Your task to perform on an android device: turn pop-ups on in chrome Image 0: 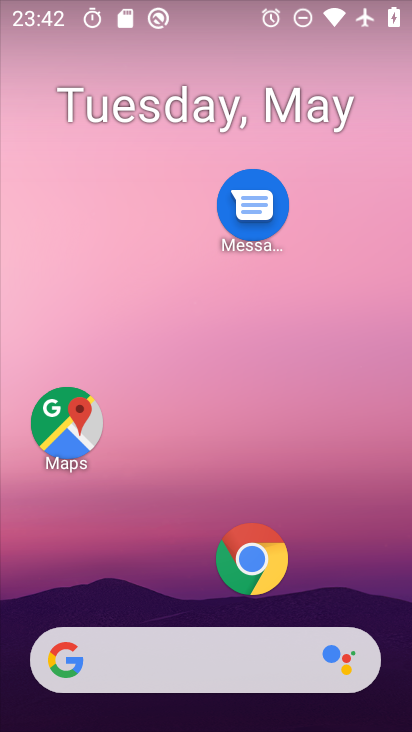
Step 0: click (258, 550)
Your task to perform on an android device: turn pop-ups on in chrome Image 1: 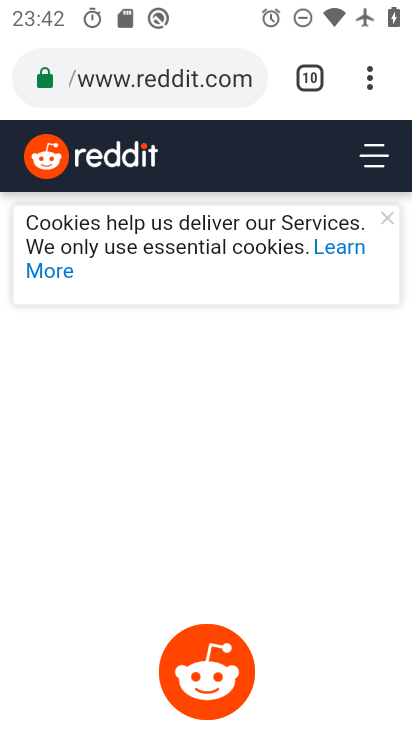
Step 1: click (372, 81)
Your task to perform on an android device: turn pop-ups on in chrome Image 2: 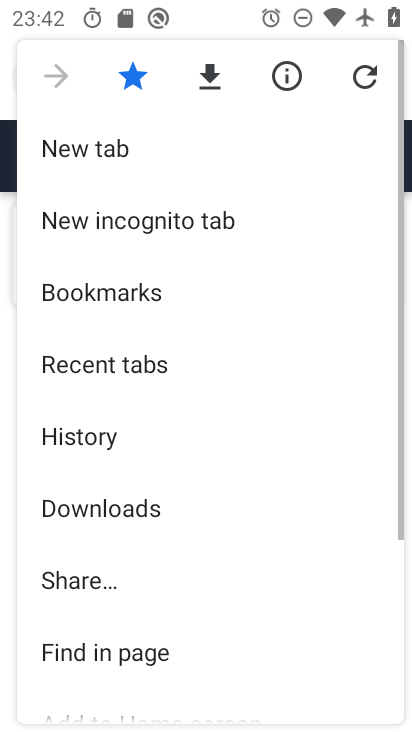
Step 2: drag from (194, 650) to (235, 247)
Your task to perform on an android device: turn pop-ups on in chrome Image 3: 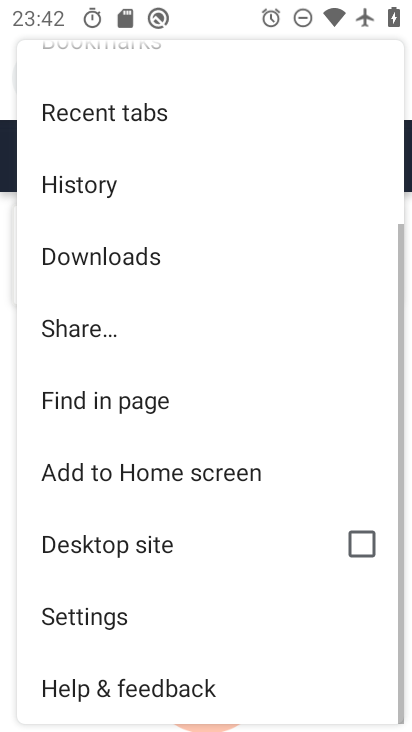
Step 3: click (186, 592)
Your task to perform on an android device: turn pop-ups on in chrome Image 4: 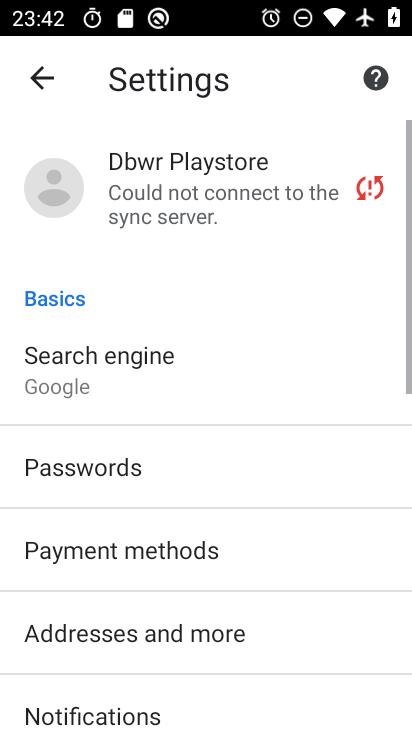
Step 4: drag from (208, 649) to (237, 222)
Your task to perform on an android device: turn pop-ups on in chrome Image 5: 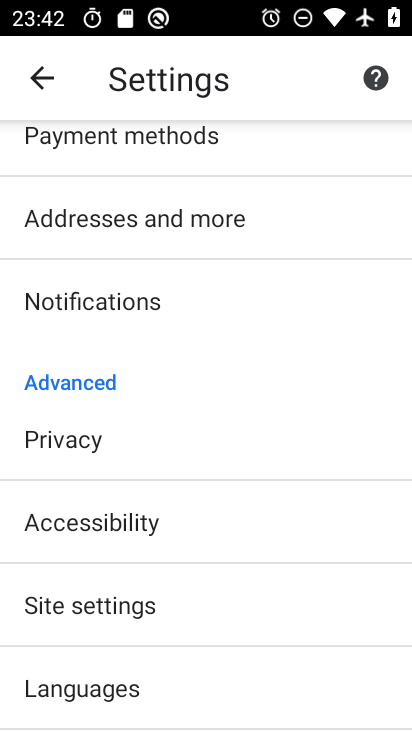
Step 5: drag from (202, 639) to (227, 377)
Your task to perform on an android device: turn pop-ups on in chrome Image 6: 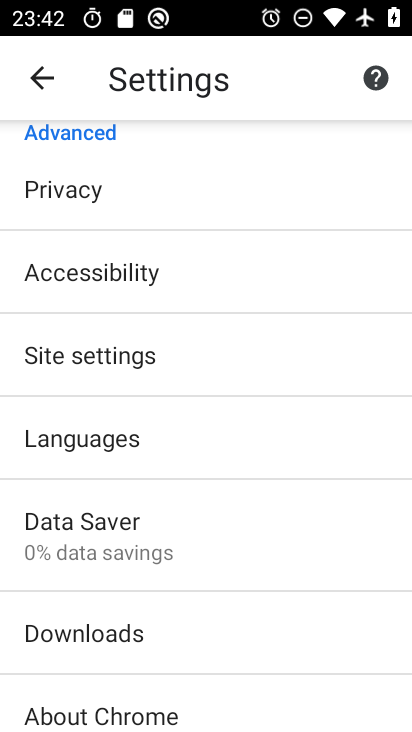
Step 6: click (194, 367)
Your task to perform on an android device: turn pop-ups on in chrome Image 7: 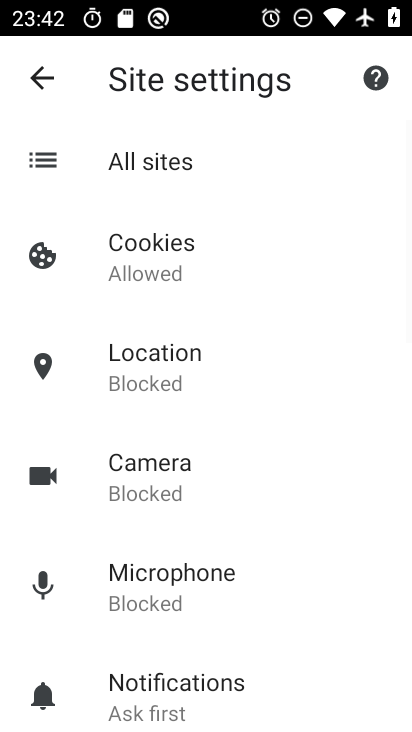
Step 7: drag from (233, 685) to (279, 289)
Your task to perform on an android device: turn pop-ups on in chrome Image 8: 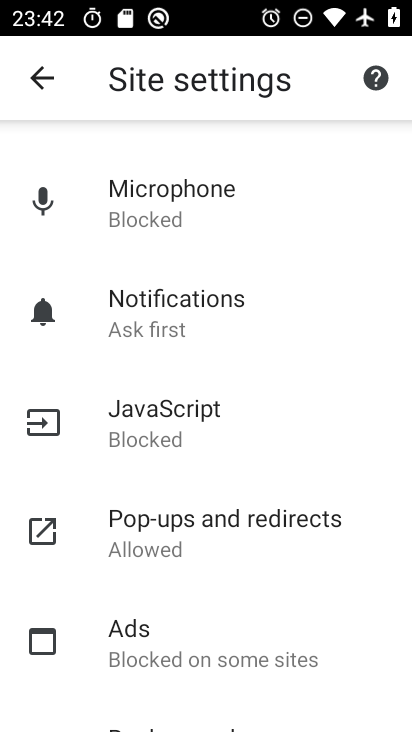
Step 8: click (245, 514)
Your task to perform on an android device: turn pop-ups on in chrome Image 9: 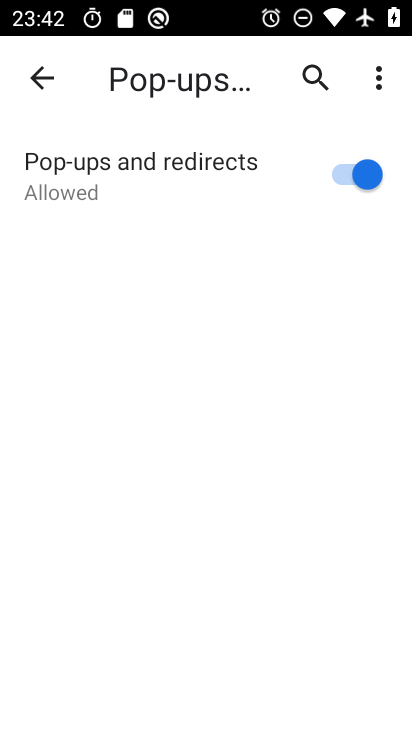
Step 9: task complete